Your task to perform on an android device: open a new tab in the chrome app Image 0: 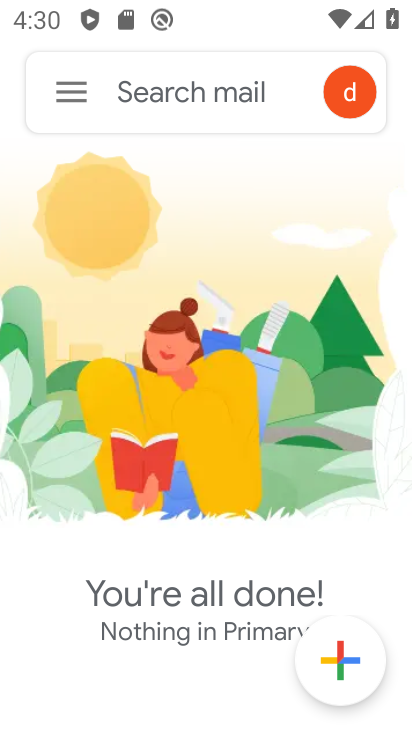
Step 0: press back button
Your task to perform on an android device: open a new tab in the chrome app Image 1: 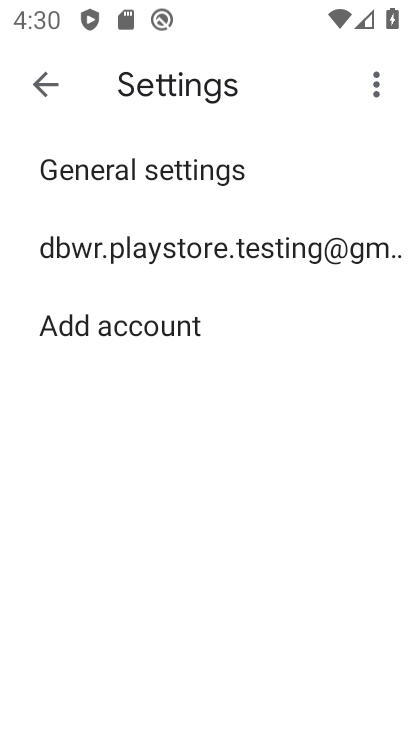
Step 1: press back button
Your task to perform on an android device: open a new tab in the chrome app Image 2: 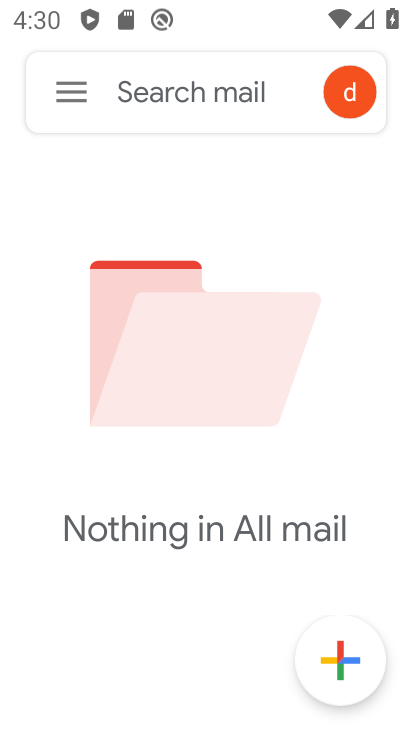
Step 2: press back button
Your task to perform on an android device: open a new tab in the chrome app Image 3: 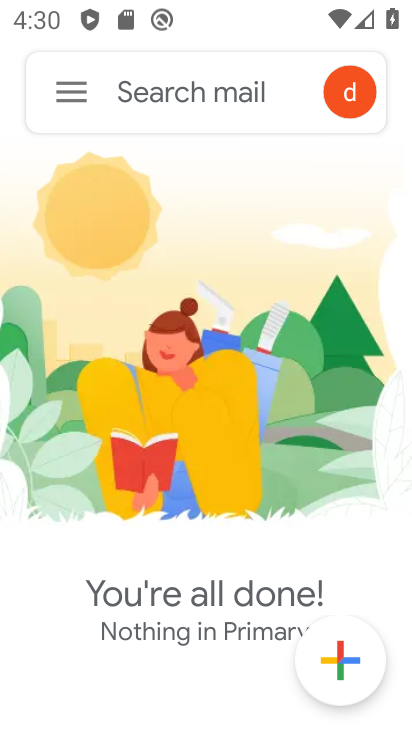
Step 3: press back button
Your task to perform on an android device: open a new tab in the chrome app Image 4: 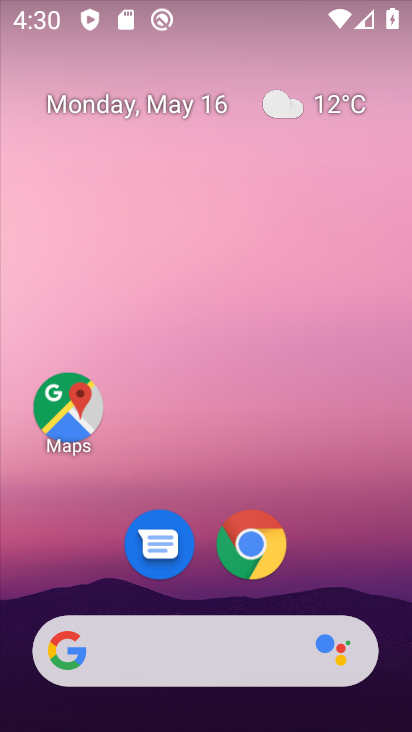
Step 4: click (254, 540)
Your task to perform on an android device: open a new tab in the chrome app Image 5: 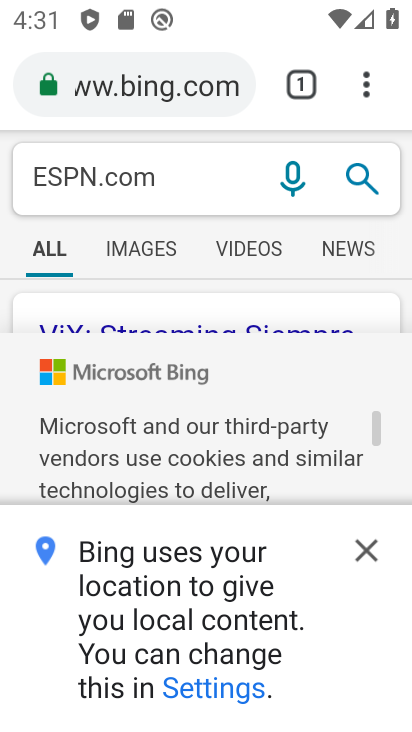
Step 5: click (367, 84)
Your task to perform on an android device: open a new tab in the chrome app Image 6: 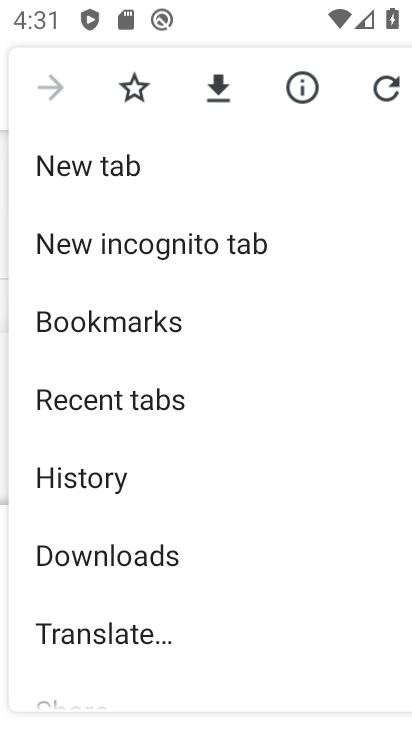
Step 6: click (105, 167)
Your task to perform on an android device: open a new tab in the chrome app Image 7: 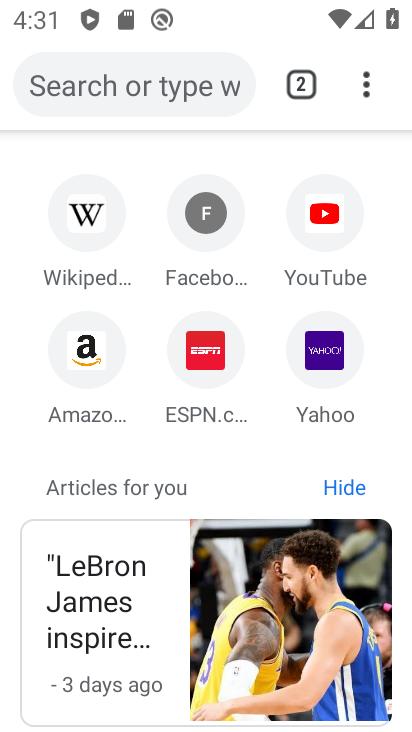
Step 7: task complete